Your task to perform on an android device: turn pop-ups off in chrome Image 0: 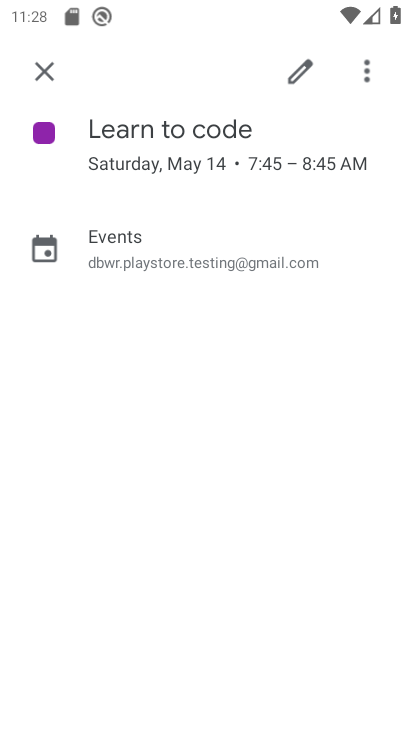
Step 0: press home button
Your task to perform on an android device: turn pop-ups off in chrome Image 1: 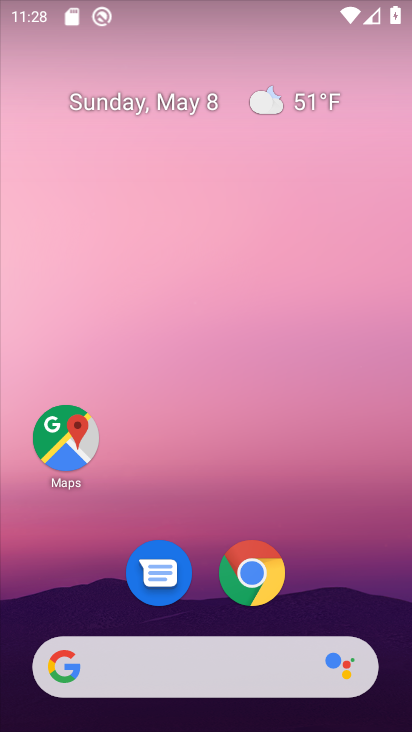
Step 1: click (271, 564)
Your task to perform on an android device: turn pop-ups off in chrome Image 2: 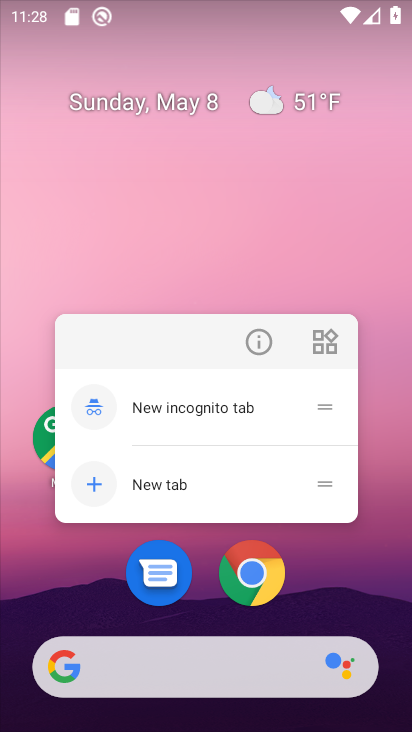
Step 2: click (258, 558)
Your task to perform on an android device: turn pop-ups off in chrome Image 3: 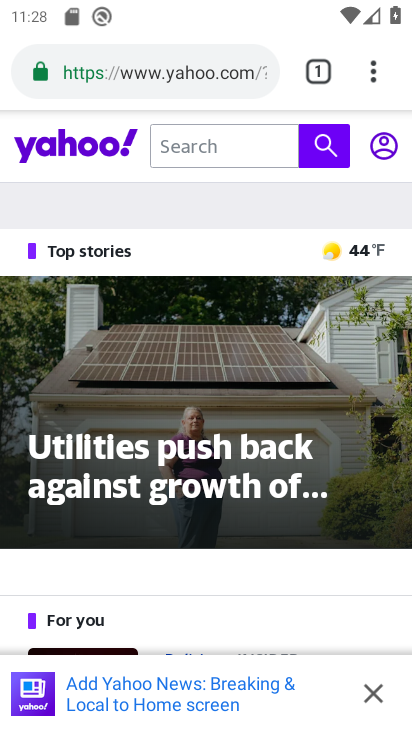
Step 3: click (371, 72)
Your task to perform on an android device: turn pop-ups off in chrome Image 4: 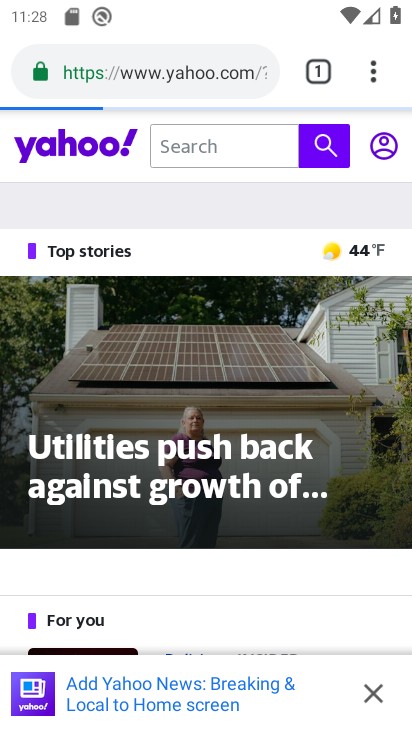
Step 4: click (371, 72)
Your task to perform on an android device: turn pop-ups off in chrome Image 5: 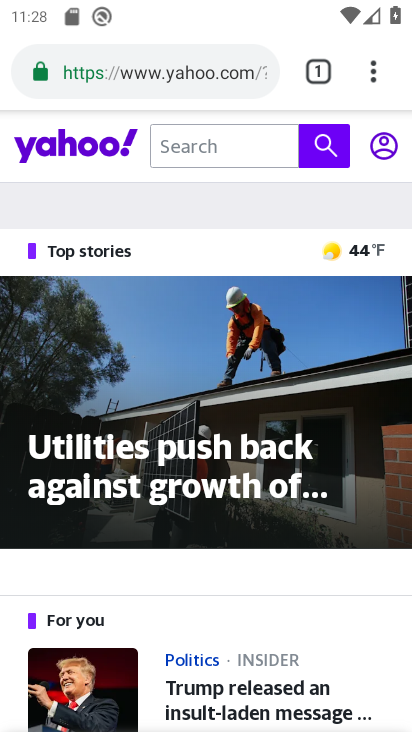
Step 5: click (374, 71)
Your task to perform on an android device: turn pop-ups off in chrome Image 6: 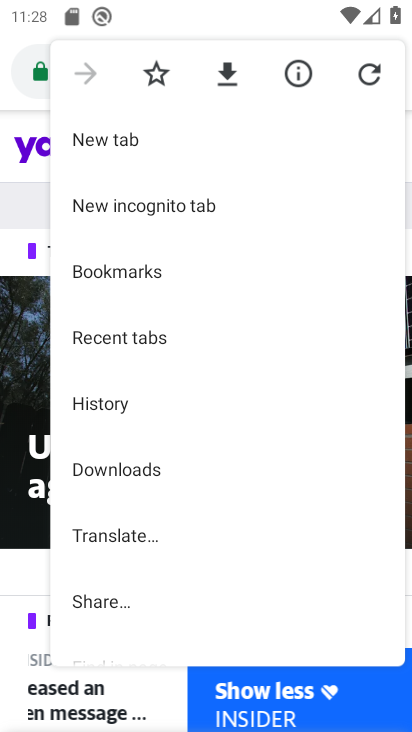
Step 6: drag from (185, 562) to (135, 199)
Your task to perform on an android device: turn pop-ups off in chrome Image 7: 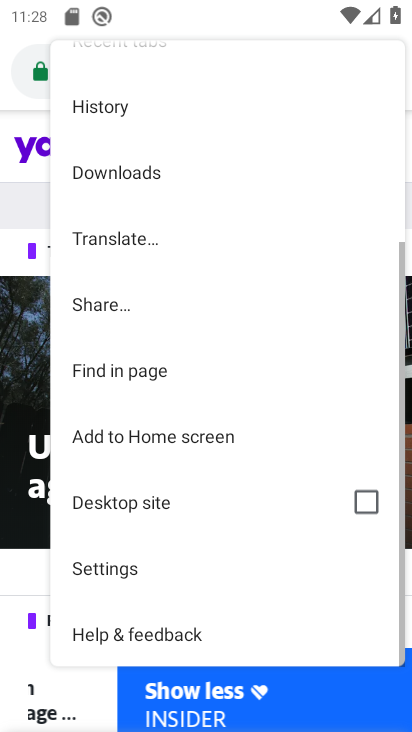
Step 7: click (126, 583)
Your task to perform on an android device: turn pop-ups off in chrome Image 8: 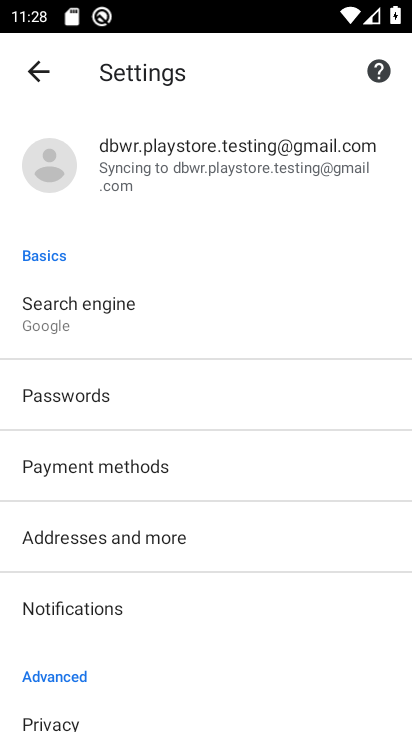
Step 8: drag from (147, 690) to (125, 300)
Your task to perform on an android device: turn pop-ups off in chrome Image 9: 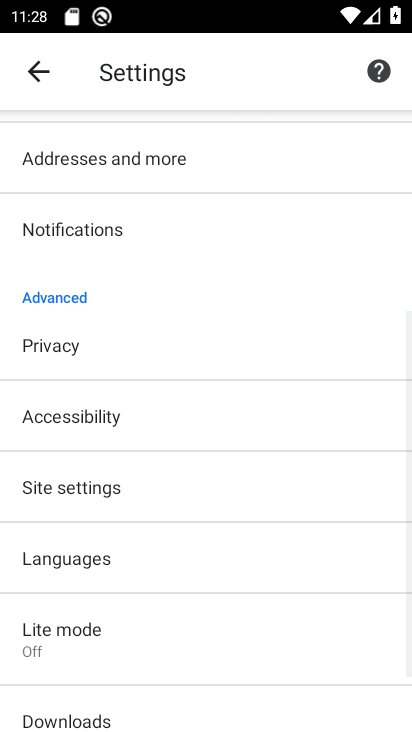
Step 9: drag from (85, 693) to (81, 338)
Your task to perform on an android device: turn pop-ups off in chrome Image 10: 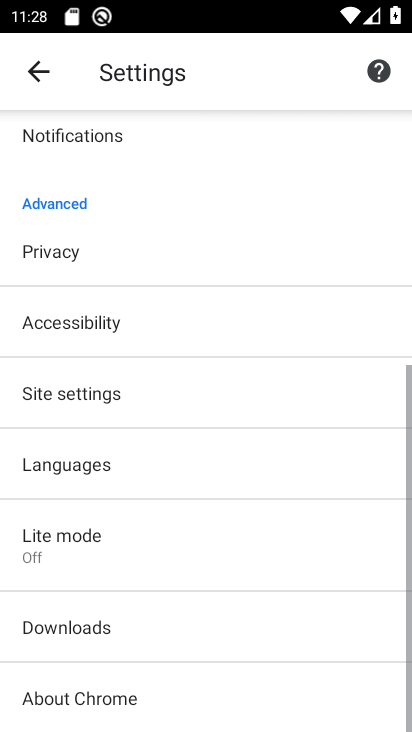
Step 10: click (75, 388)
Your task to perform on an android device: turn pop-ups off in chrome Image 11: 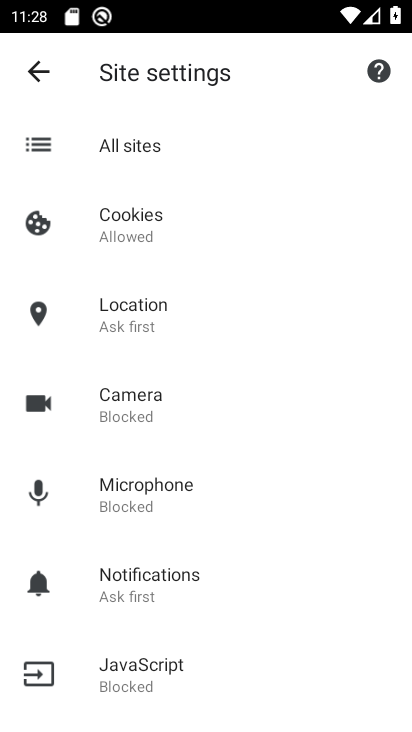
Step 11: drag from (144, 689) to (206, 268)
Your task to perform on an android device: turn pop-ups off in chrome Image 12: 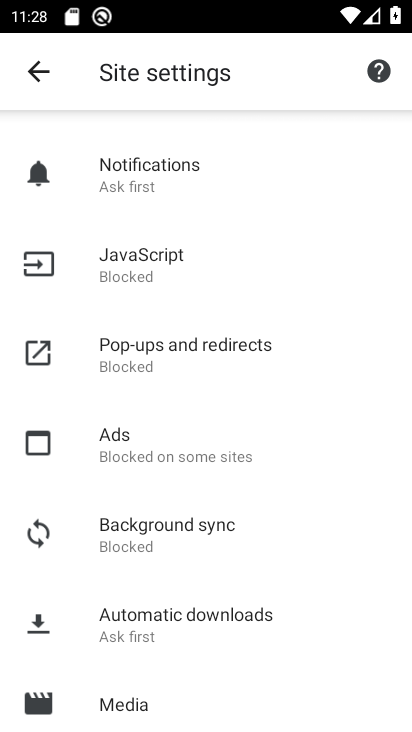
Step 12: drag from (157, 681) to (184, 283)
Your task to perform on an android device: turn pop-ups off in chrome Image 13: 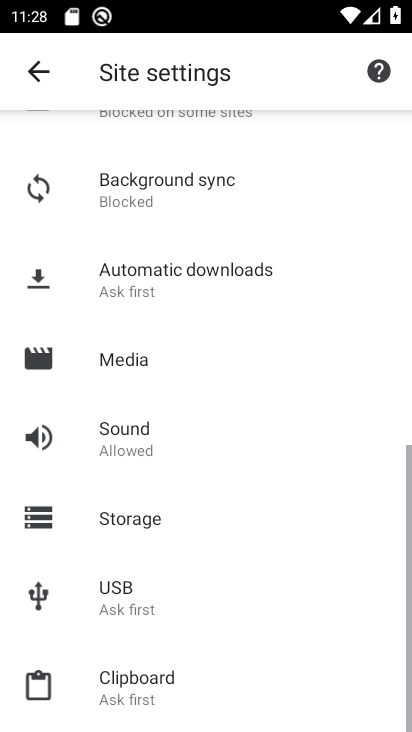
Step 13: drag from (196, 186) to (207, 576)
Your task to perform on an android device: turn pop-ups off in chrome Image 14: 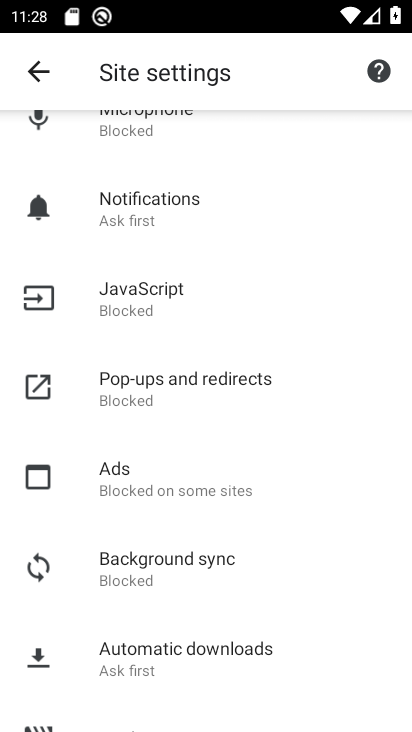
Step 14: click (134, 401)
Your task to perform on an android device: turn pop-ups off in chrome Image 15: 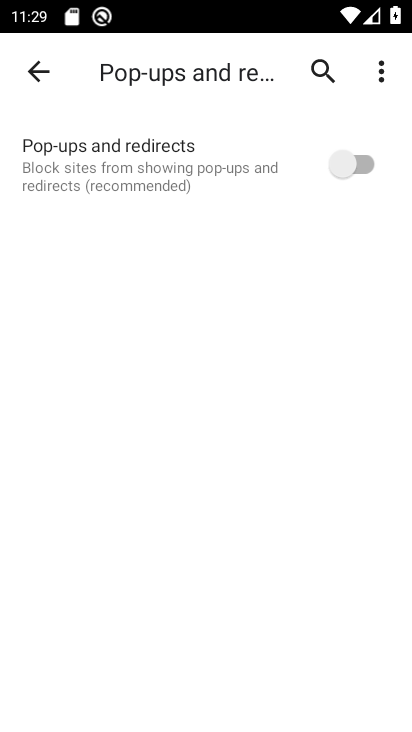
Step 15: task complete